Your task to perform on an android device: turn off location Image 0: 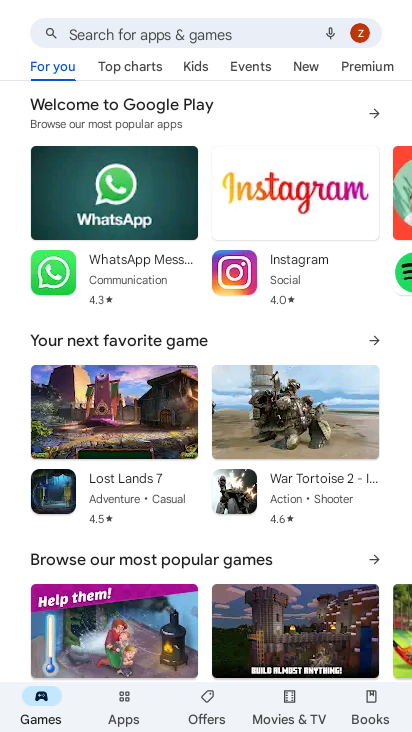
Step 0: press home button
Your task to perform on an android device: turn off location Image 1: 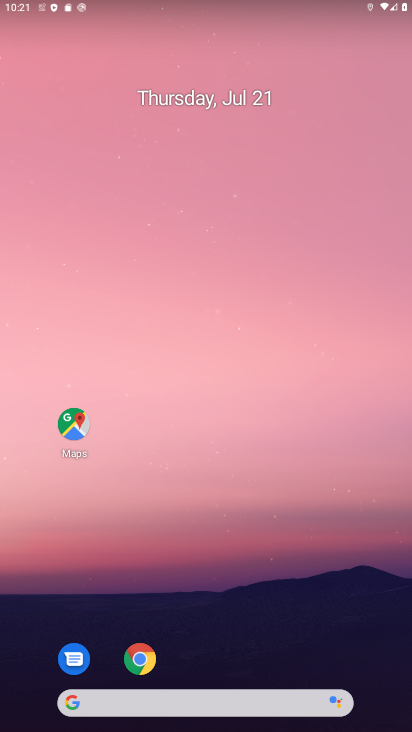
Step 1: drag from (227, 683) to (113, 78)
Your task to perform on an android device: turn off location Image 2: 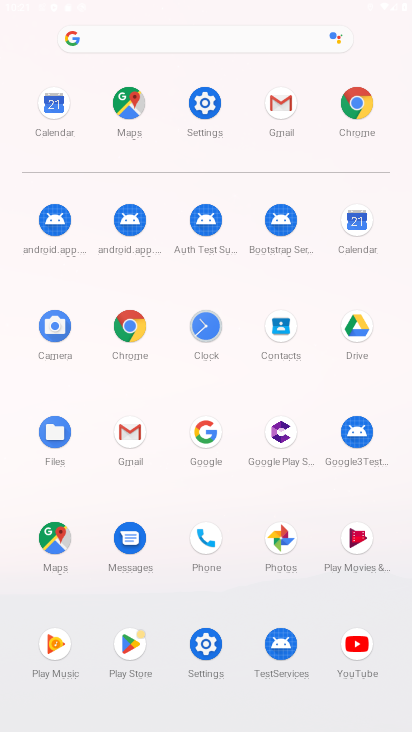
Step 2: click (182, 101)
Your task to perform on an android device: turn off location Image 3: 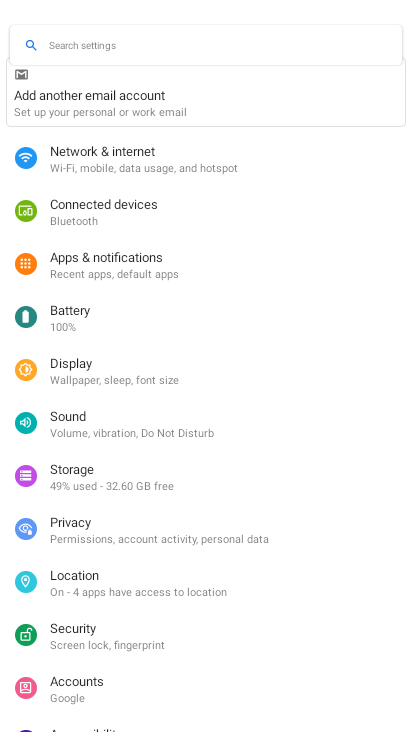
Step 3: click (108, 579)
Your task to perform on an android device: turn off location Image 4: 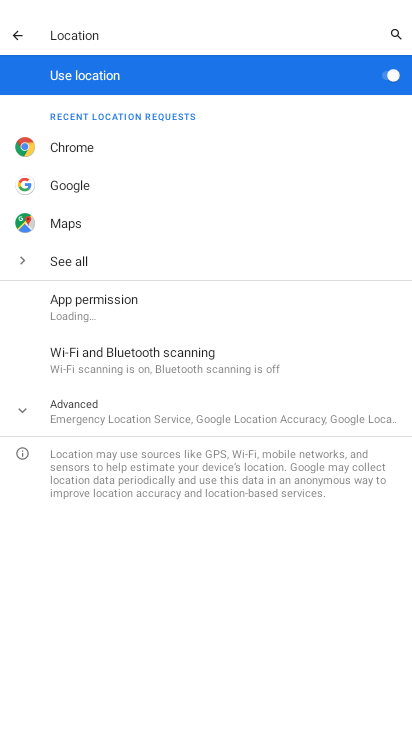
Step 4: click (388, 84)
Your task to perform on an android device: turn off location Image 5: 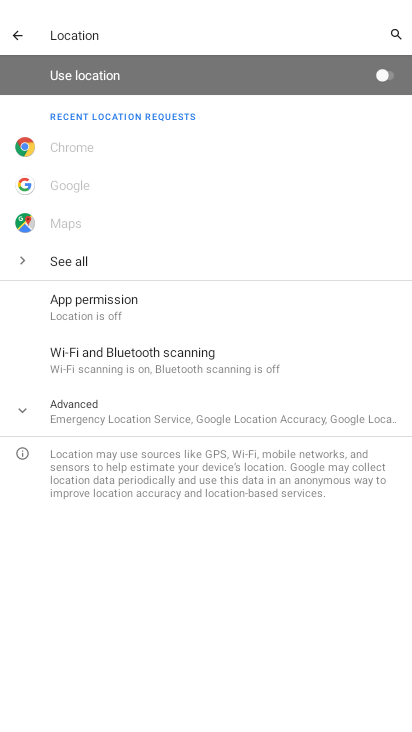
Step 5: task complete